Your task to perform on an android device: turn off translation in the chrome app Image 0: 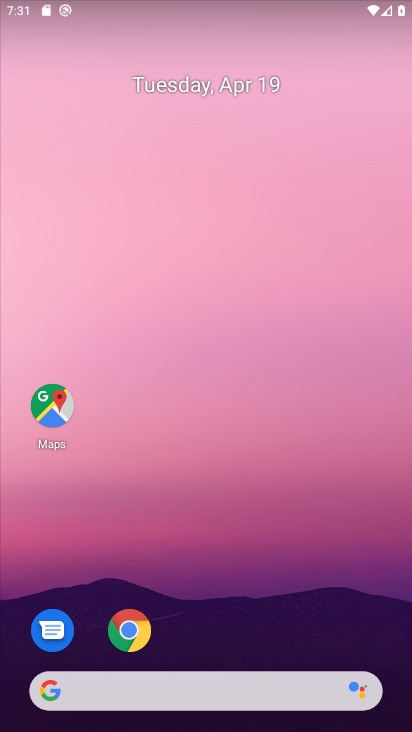
Step 0: click (118, 643)
Your task to perform on an android device: turn off translation in the chrome app Image 1: 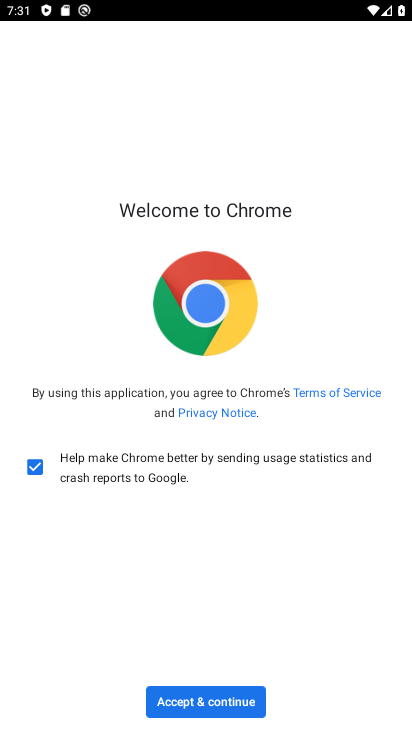
Step 1: click (225, 701)
Your task to perform on an android device: turn off translation in the chrome app Image 2: 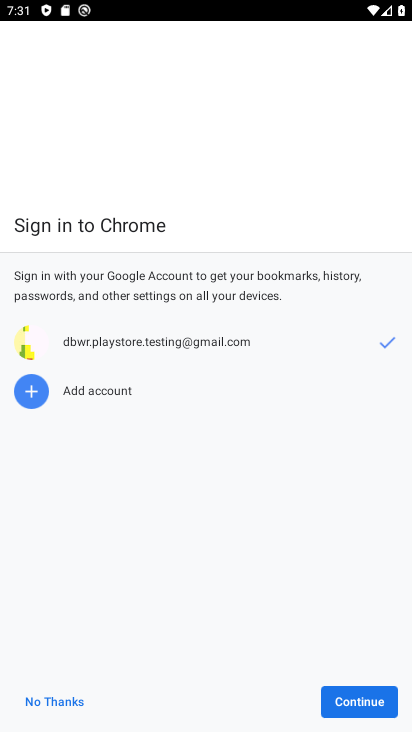
Step 2: click (365, 697)
Your task to perform on an android device: turn off translation in the chrome app Image 3: 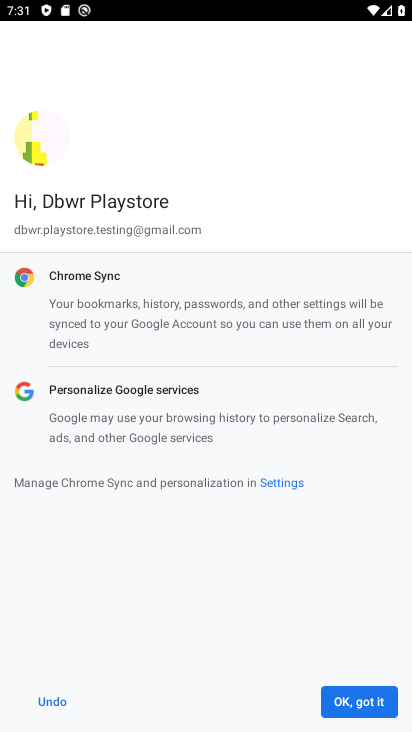
Step 3: click (389, 711)
Your task to perform on an android device: turn off translation in the chrome app Image 4: 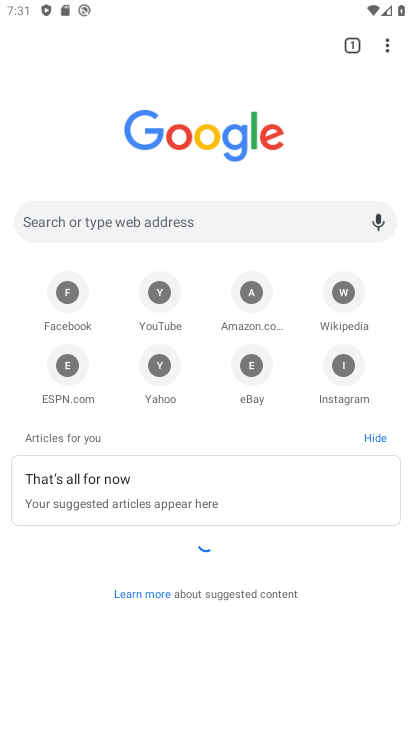
Step 4: click (387, 33)
Your task to perform on an android device: turn off translation in the chrome app Image 5: 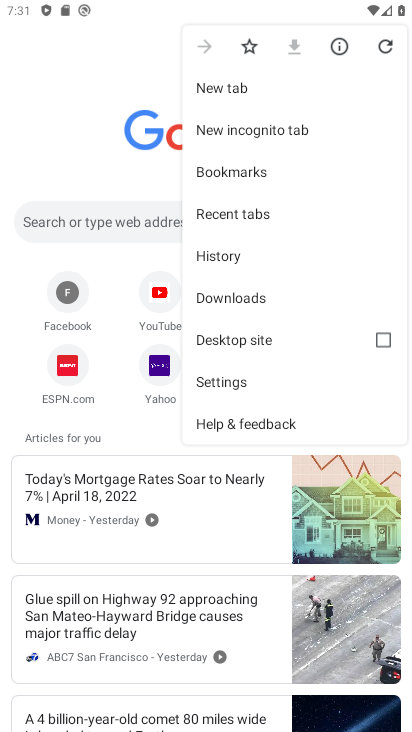
Step 5: click (206, 376)
Your task to perform on an android device: turn off translation in the chrome app Image 6: 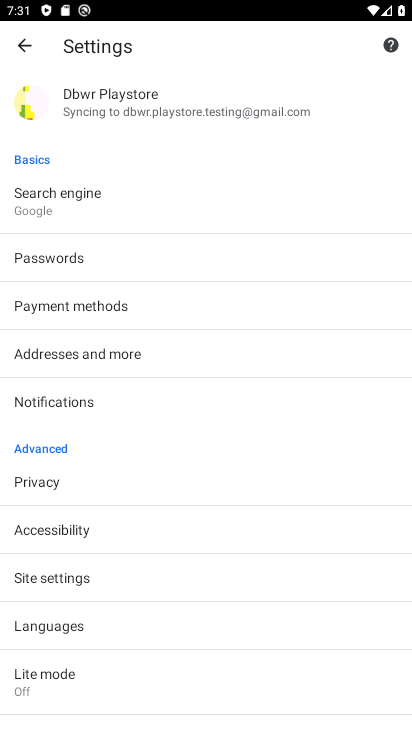
Step 6: click (37, 624)
Your task to perform on an android device: turn off translation in the chrome app Image 7: 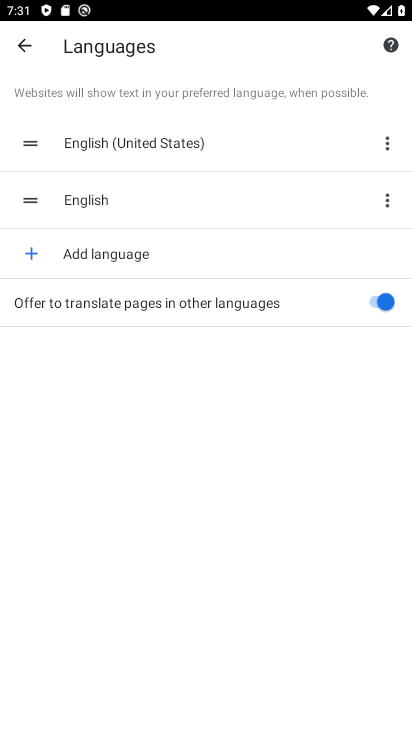
Step 7: click (377, 301)
Your task to perform on an android device: turn off translation in the chrome app Image 8: 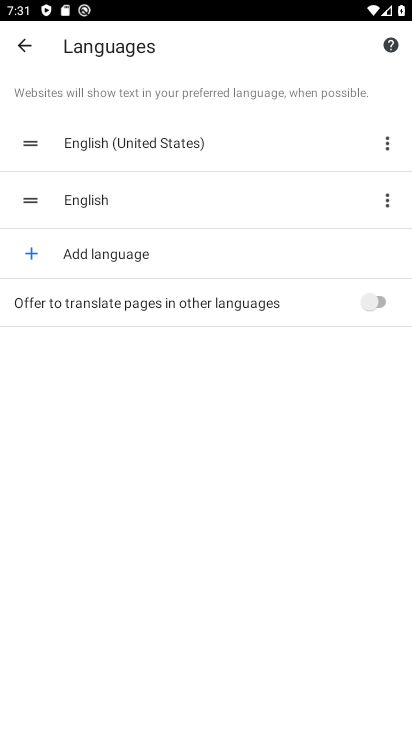
Step 8: task complete